Your task to perform on an android device: toggle pop-ups in chrome Image 0: 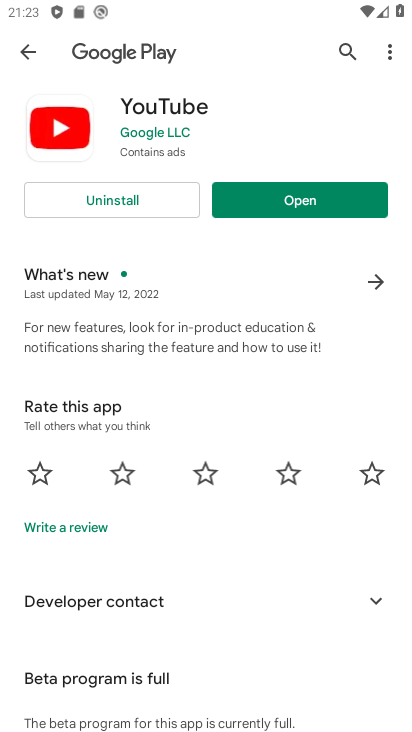
Step 0: press home button
Your task to perform on an android device: toggle pop-ups in chrome Image 1: 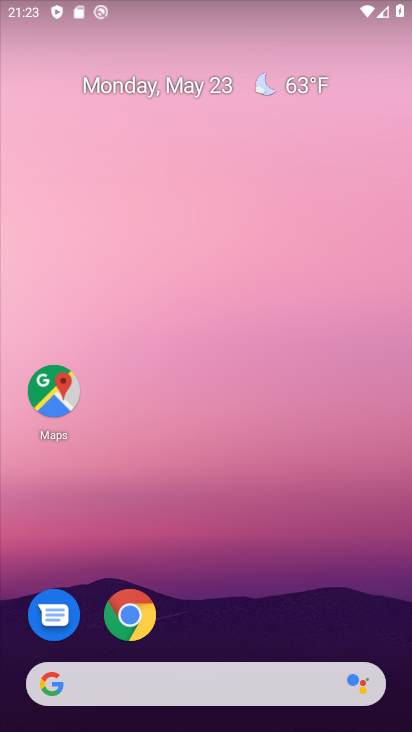
Step 1: click (128, 616)
Your task to perform on an android device: toggle pop-ups in chrome Image 2: 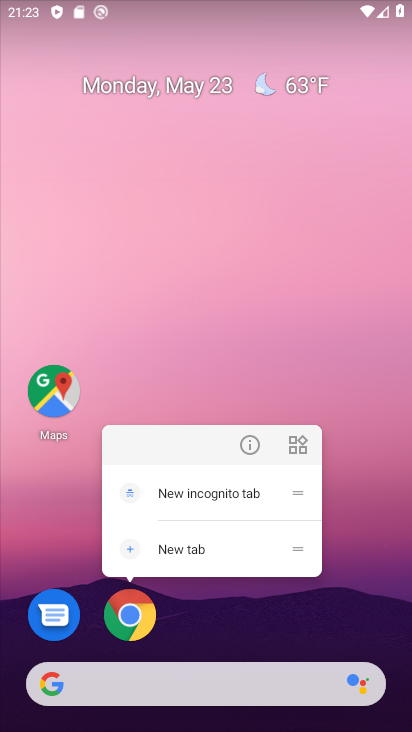
Step 2: click (132, 621)
Your task to perform on an android device: toggle pop-ups in chrome Image 3: 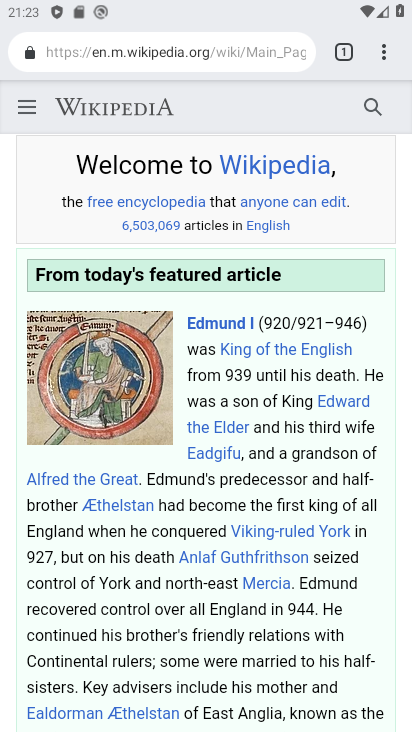
Step 3: click (377, 55)
Your task to perform on an android device: toggle pop-ups in chrome Image 4: 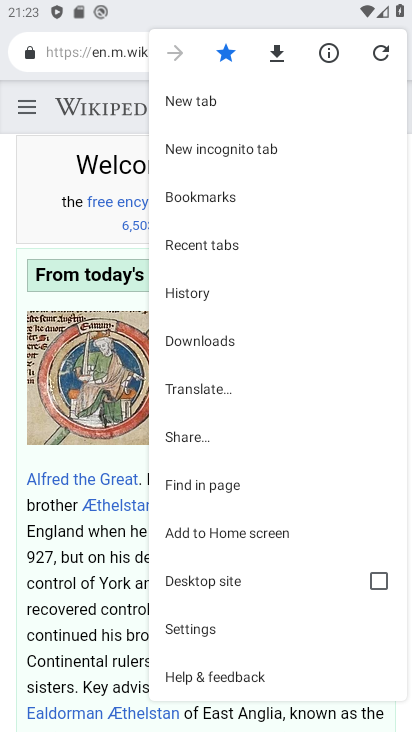
Step 4: click (194, 630)
Your task to perform on an android device: toggle pop-ups in chrome Image 5: 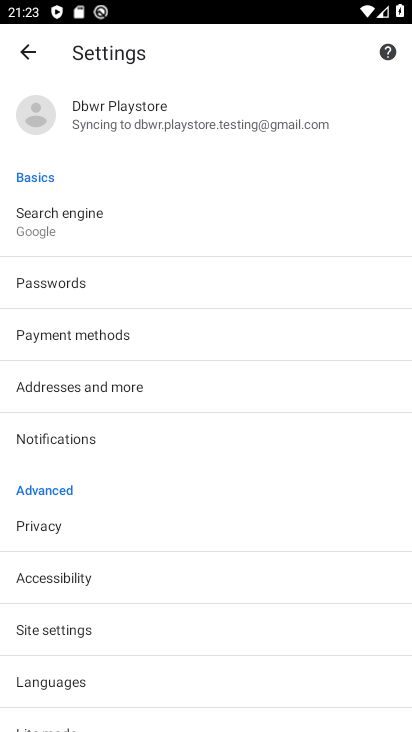
Step 5: click (133, 635)
Your task to perform on an android device: toggle pop-ups in chrome Image 6: 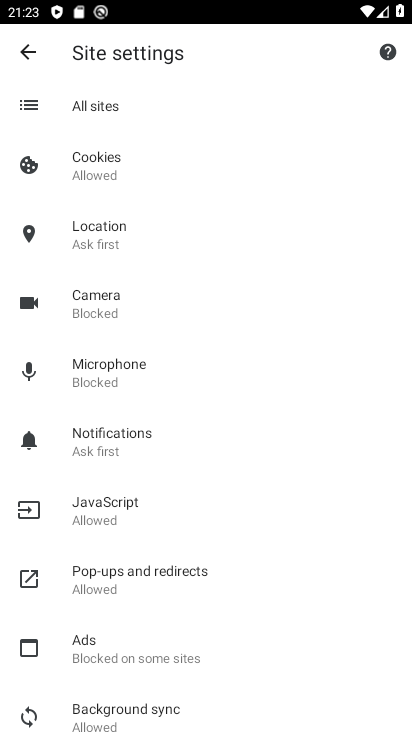
Step 6: click (161, 605)
Your task to perform on an android device: toggle pop-ups in chrome Image 7: 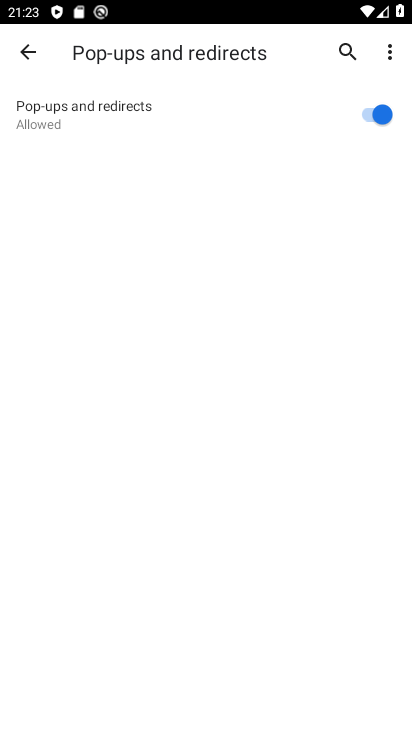
Step 7: click (366, 116)
Your task to perform on an android device: toggle pop-ups in chrome Image 8: 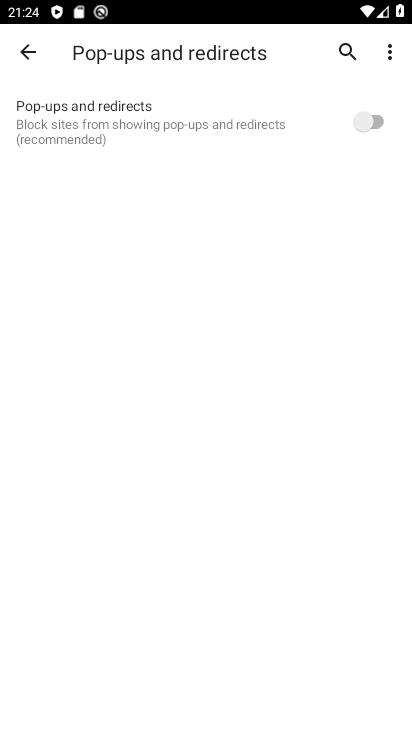
Step 8: task complete